Your task to perform on an android device: Show me popular videos on Youtube Image 0: 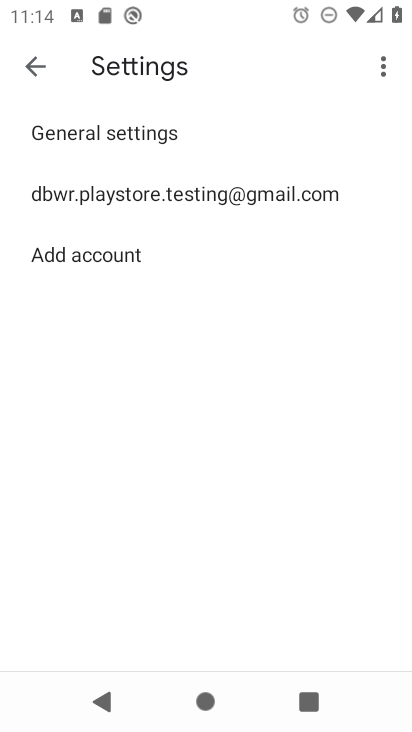
Step 0: press home button
Your task to perform on an android device: Show me popular videos on Youtube Image 1: 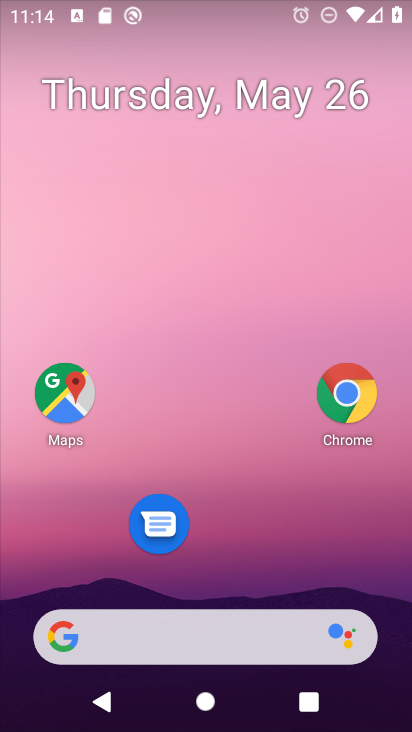
Step 1: drag from (246, 557) to (266, 0)
Your task to perform on an android device: Show me popular videos on Youtube Image 2: 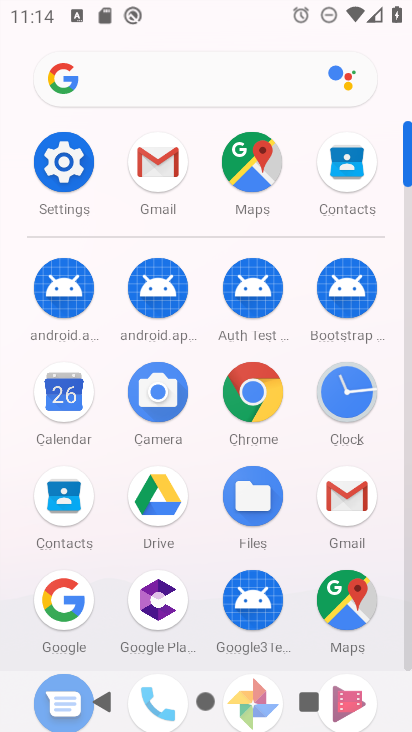
Step 2: drag from (206, 477) to (224, 118)
Your task to perform on an android device: Show me popular videos on Youtube Image 3: 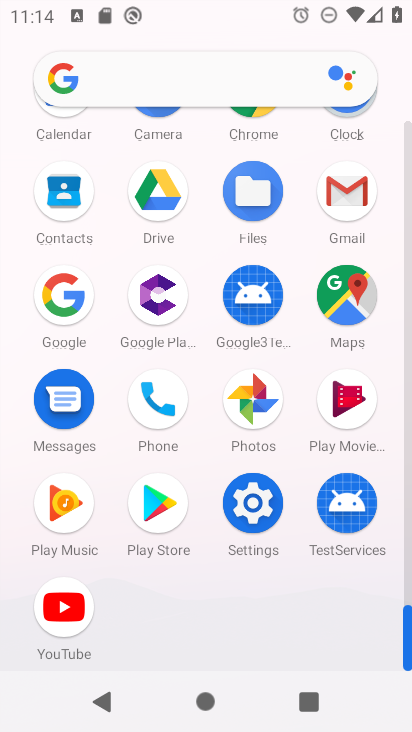
Step 3: click (65, 596)
Your task to perform on an android device: Show me popular videos on Youtube Image 4: 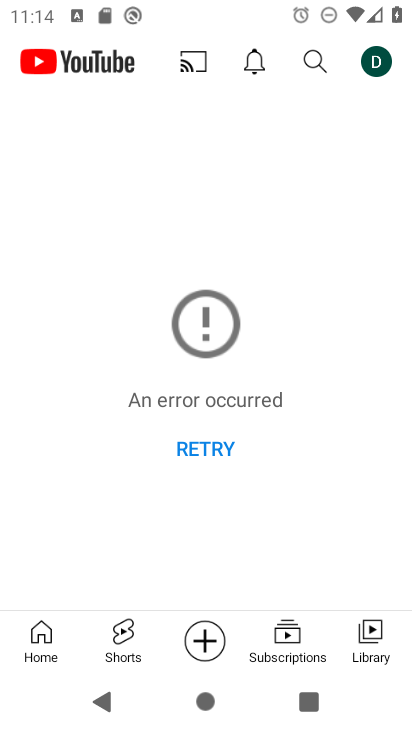
Step 4: click (212, 440)
Your task to perform on an android device: Show me popular videos on Youtube Image 5: 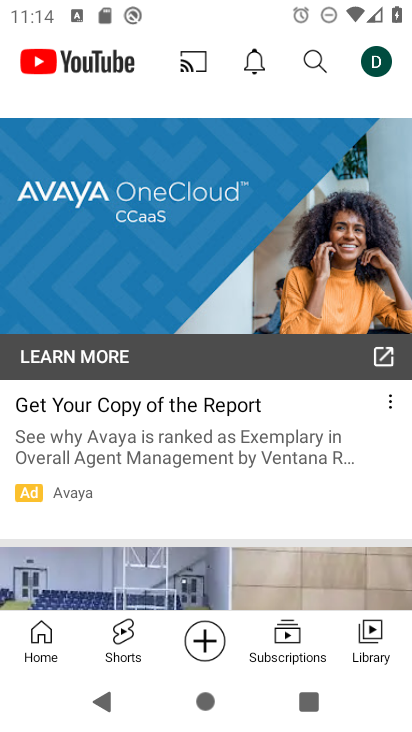
Step 5: click (46, 628)
Your task to perform on an android device: Show me popular videos on Youtube Image 6: 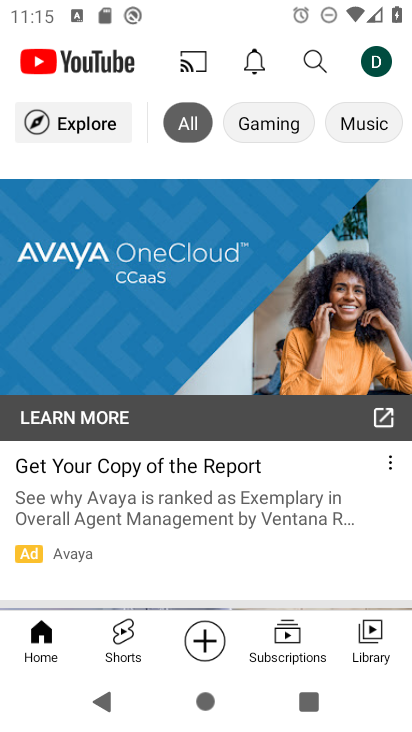
Step 6: click (317, 59)
Your task to perform on an android device: Show me popular videos on Youtube Image 7: 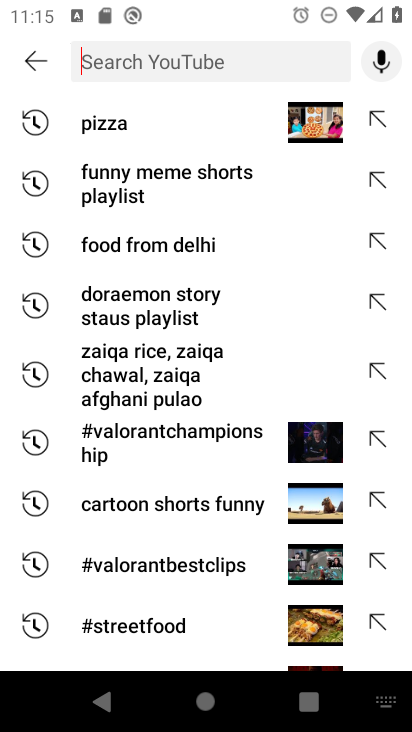
Step 7: type "popular videos"
Your task to perform on an android device: Show me popular videos on Youtube Image 8: 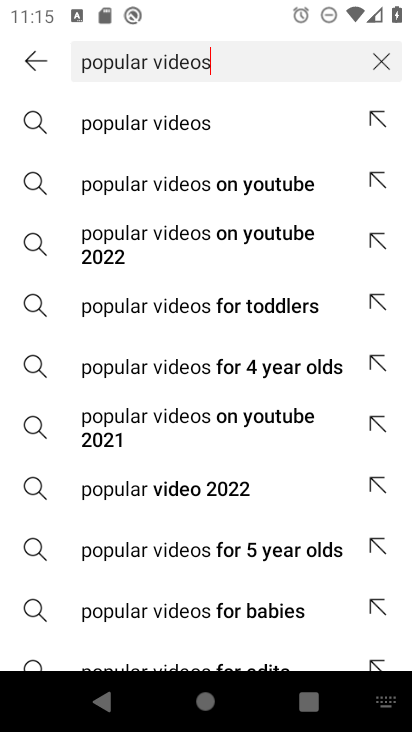
Step 8: click (238, 183)
Your task to perform on an android device: Show me popular videos on Youtube Image 9: 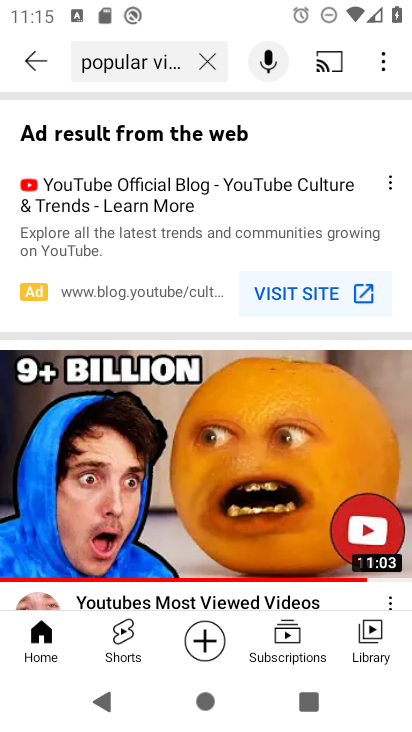
Step 9: task complete